Your task to perform on an android device: turn on showing notifications on the lock screen Image 0: 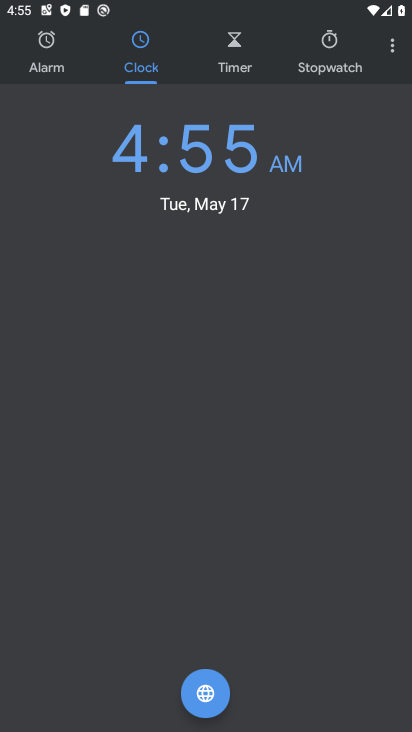
Step 0: press home button
Your task to perform on an android device: turn on showing notifications on the lock screen Image 1: 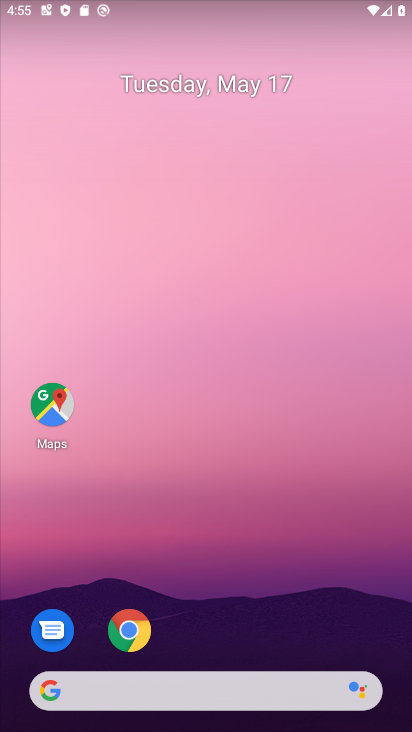
Step 1: drag from (325, 531) to (273, 62)
Your task to perform on an android device: turn on showing notifications on the lock screen Image 2: 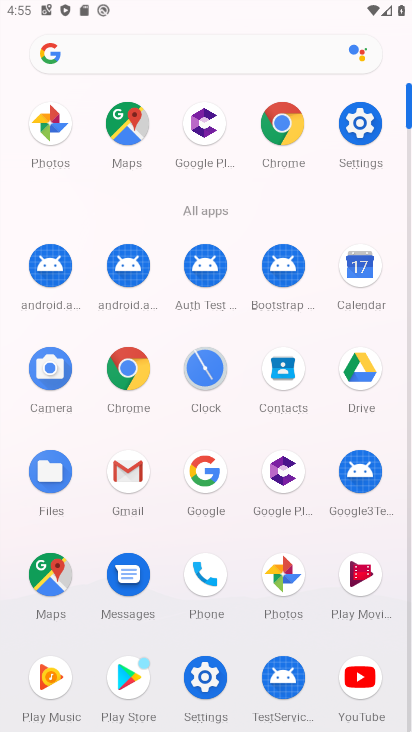
Step 2: click (368, 112)
Your task to perform on an android device: turn on showing notifications on the lock screen Image 3: 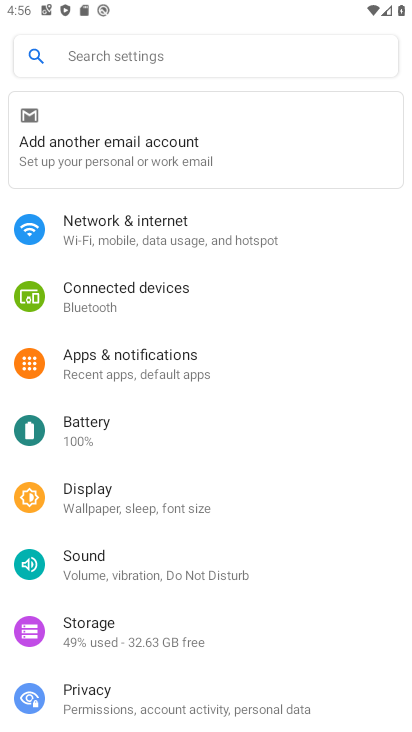
Step 3: click (141, 357)
Your task to perform on an android device: turn on showing notifications on the lock screen Image 4: 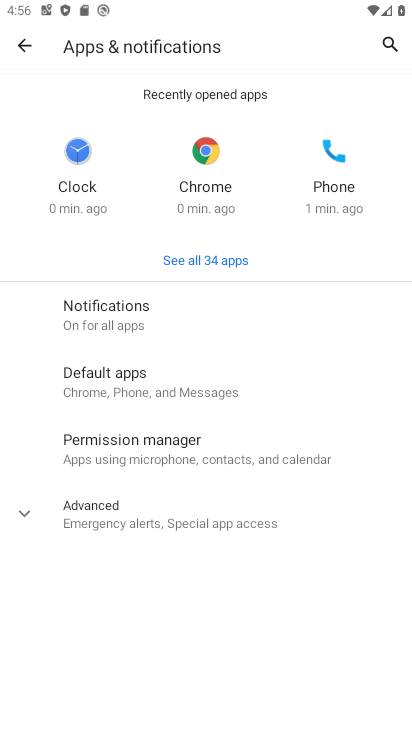
Step 4: click (142, 331)
Your task to perform on an android device: turn on showing notifications on the lock screen Image 5: 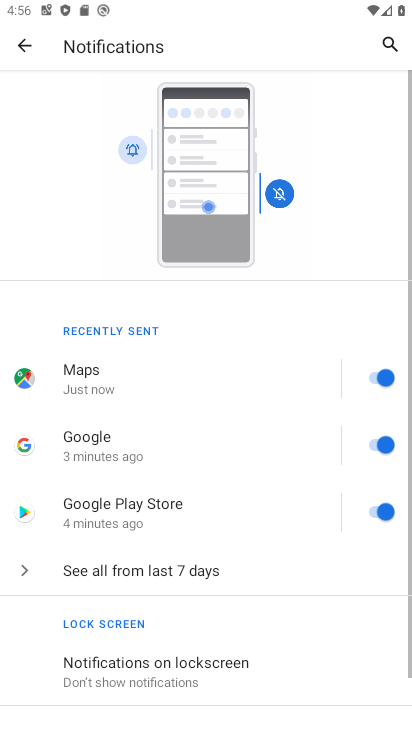
Step 5: drag from (256, 616) to (295, 163)
Your task to perform on an android device: turn on showing notifications on the lock screen Image 6: 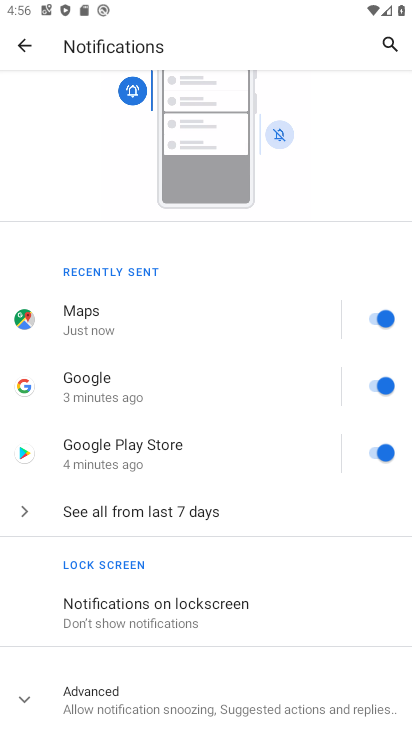
Step 6: click (192, 616)
Your task to perform on an android device: turn on showing notifications on the lock screen Image 7: 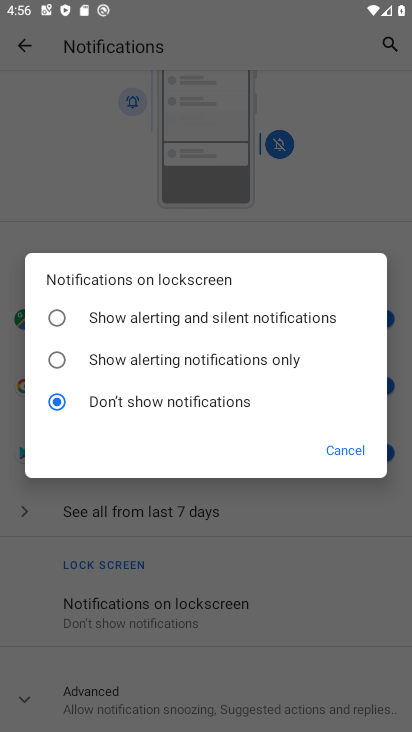
Step 7: click (198, 360)
Your task to perform on an android device: turn on showing notifications on the lock screen Image 8: 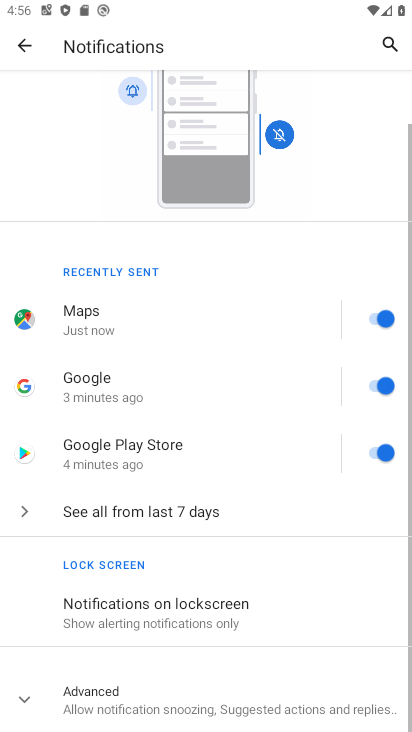
Step 8: task complete